Your task to perform on an android device: Open display settings Image 0: 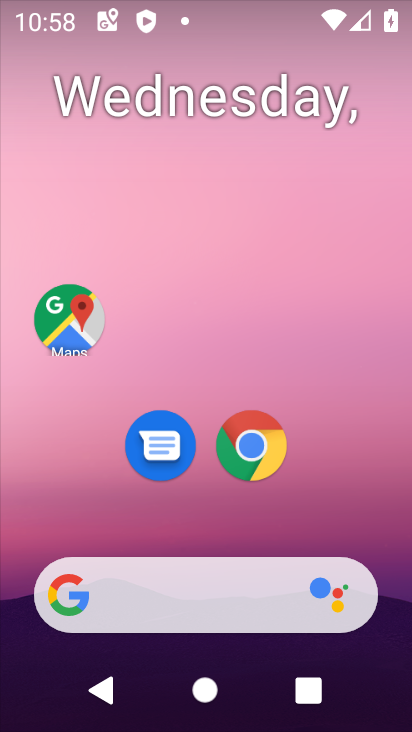
Step 0: drag from (153, 455) to (194, 60)
Your task to perform on an android device: Open display settings Image 1: 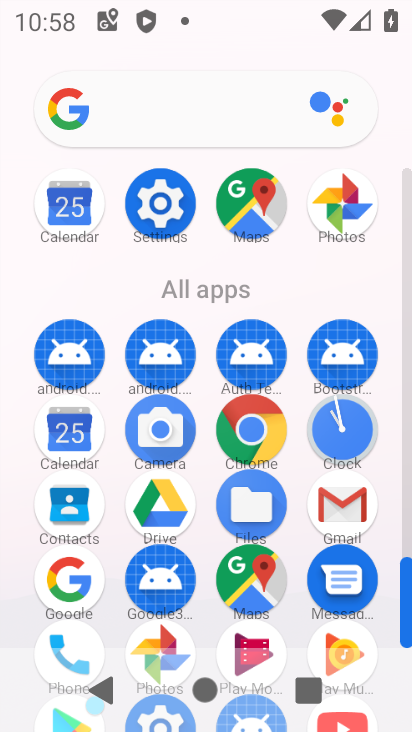
Step 1: click (168, 195)
Your task to perform on an android device: Open display settings Image 2: 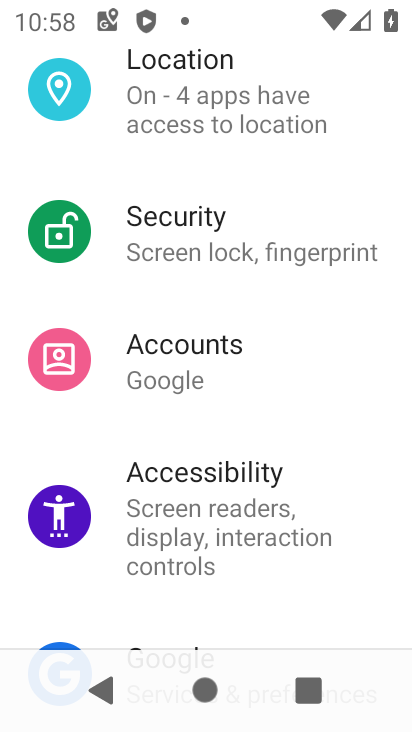
Step 2: drag from (220, 195) to (227, 655)
Your task to perform on an android device: Open display settings Image 3: 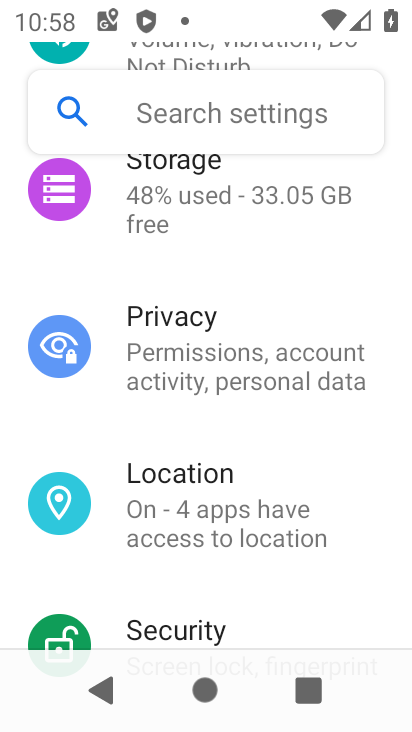
Step 3: drag from (193, 230) to (161, 616)
Your task to perform on an android device: Open display settings Image 4: 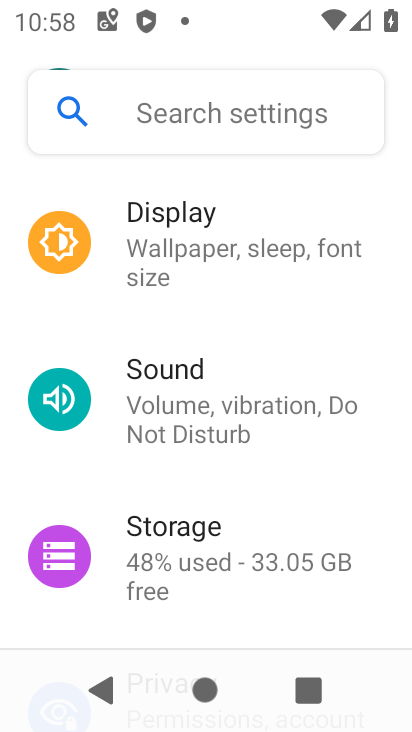
Step 4: click (178, 223)
Your task to perform on an android device: Open display settings Image 5: 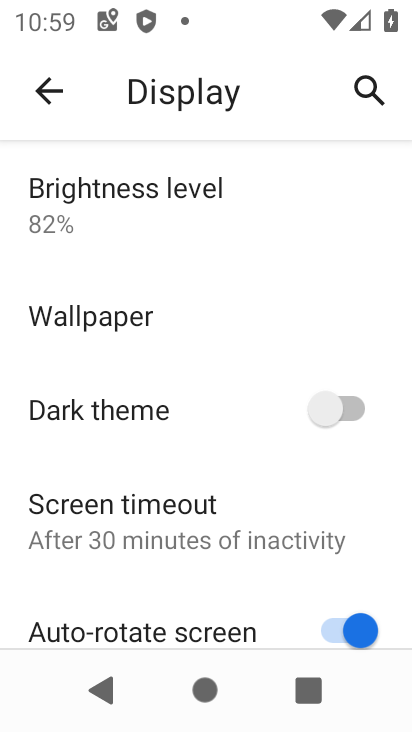
Step 5: task complete